Your task to perform on an android device: toggle notifications settings in the gmail app Image 0: 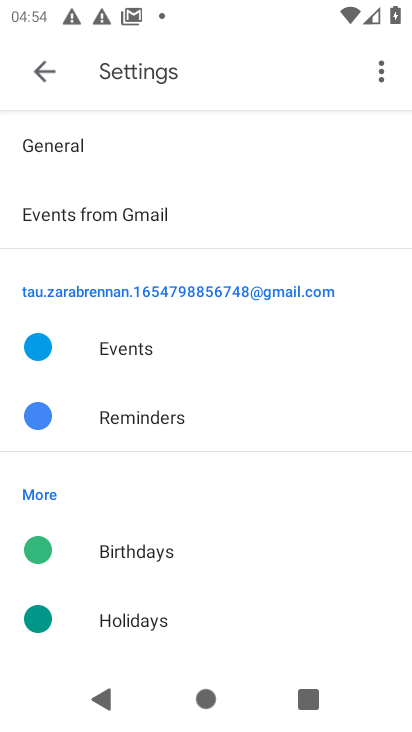
Step 0: press home button
Your task to perform on an android device: toggle notifications settings in the gmail app Image 1: 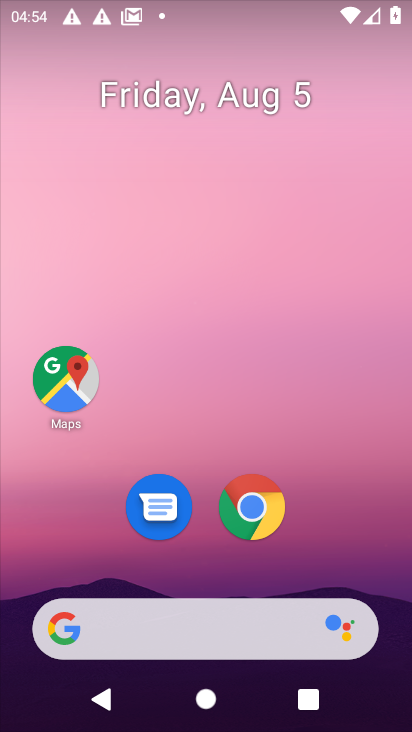
Step 1: drag from (138, 600) to (94, 180)
Your task to perform on an android device: toggle notifications settings in the gmail app Image 2: 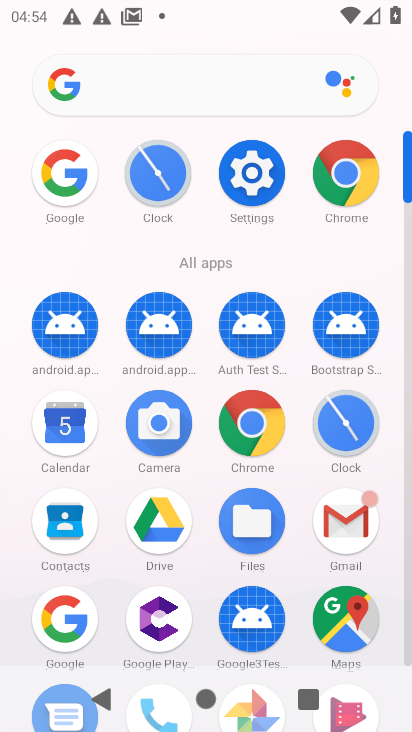
Step 2: click (342, 512)
Your task to perform on an android device: toggle notifications settings in the gmail app Image 3: 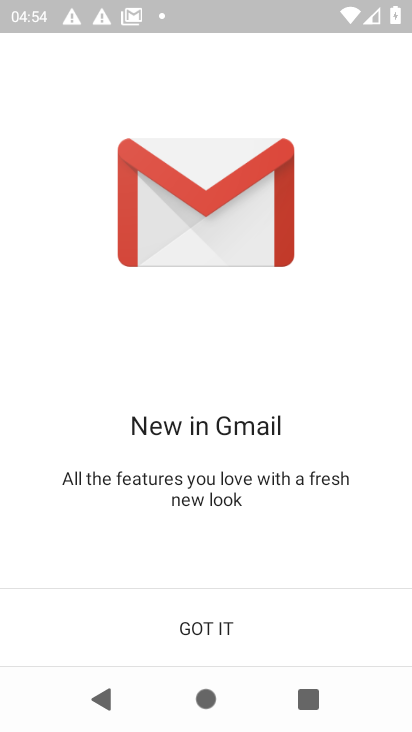
Step 3: click (203, 625)
Your task to perform on an android device: toggle notifications settings in the gmail app Image 4: 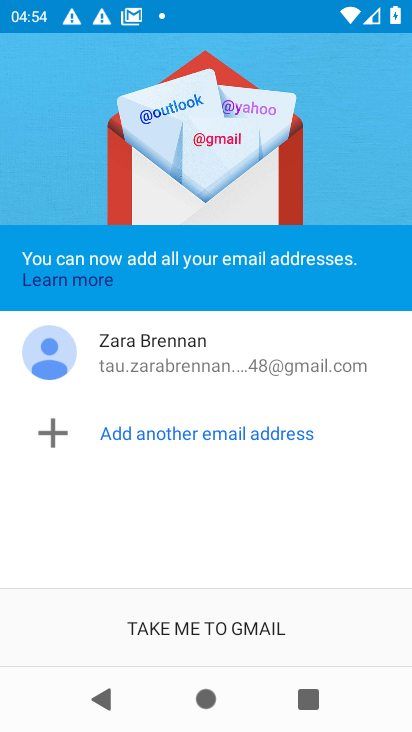
Step 4: click (203, 625)
Your task to perform on an android device: toggle notifications settings in the gmail app Image 5: 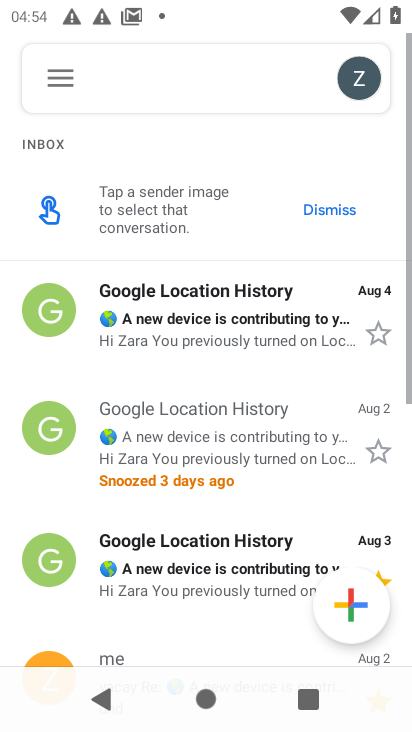
Step 5: click (59, 83)
Your task to perform on an android device: toggle notifications settings in the gmail app Image 6: 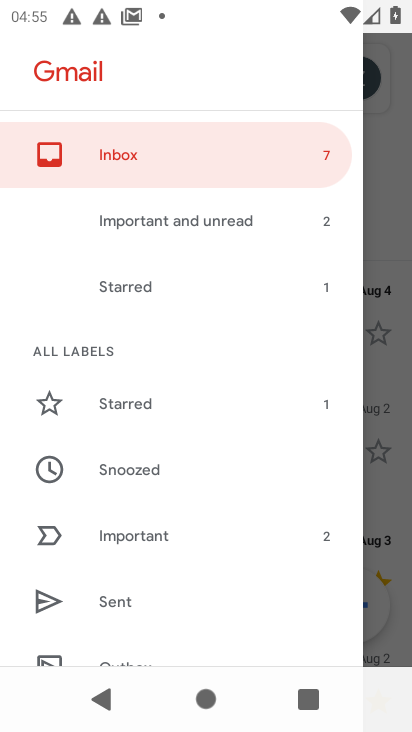
Step 6: drag from (151, 637) to (138, 301)
Your task to perform on an android device: toggle notifications settings in the gmail app Image 7: 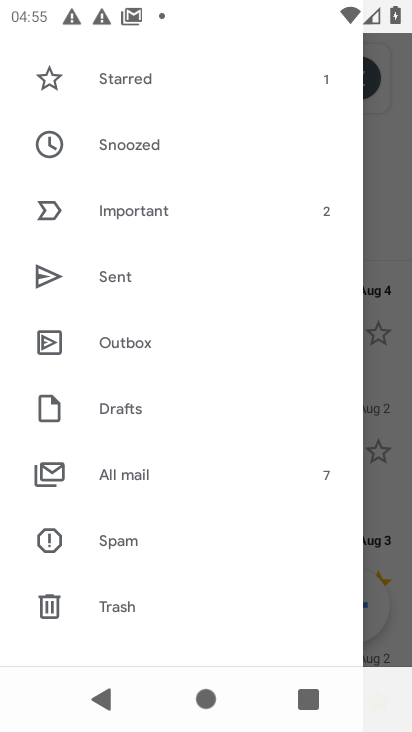
Step 7: drag from (181, 604) to (163, 321)
Your task to perform on an android device: toggle notifications settings in the gmail app Image 8: 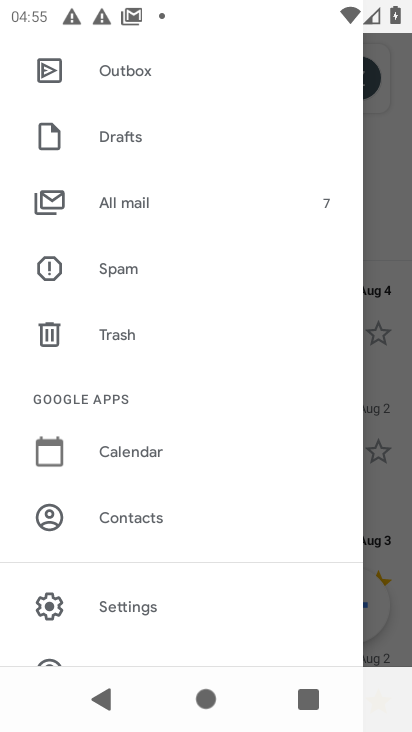
Step 8: click (154, 616)
Your task to perform on an android device: toggle notifications settings in the gmail app Image 9: 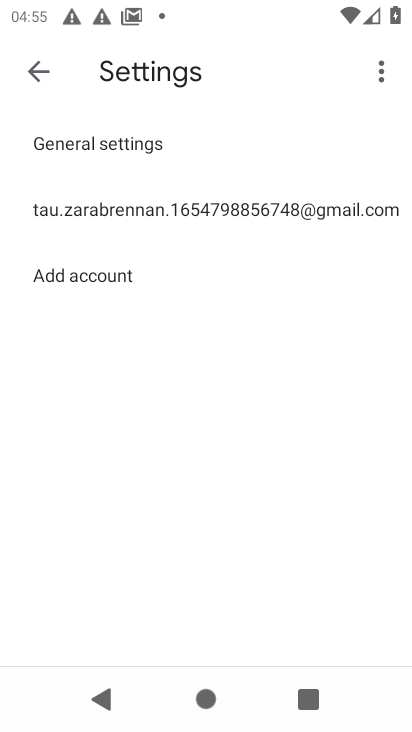
Step 9: click (134, 212)
Your task to perform on an android device: toggle notifications settings in the gmail app Image 10: 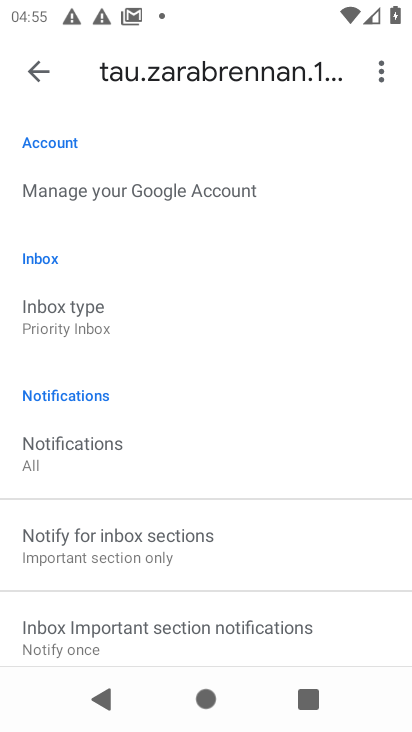
Step 10: drag from (106, 614) to (93, 322)
Your task to perform on an android device: toggle notifications settings in the gmail app Image 11: 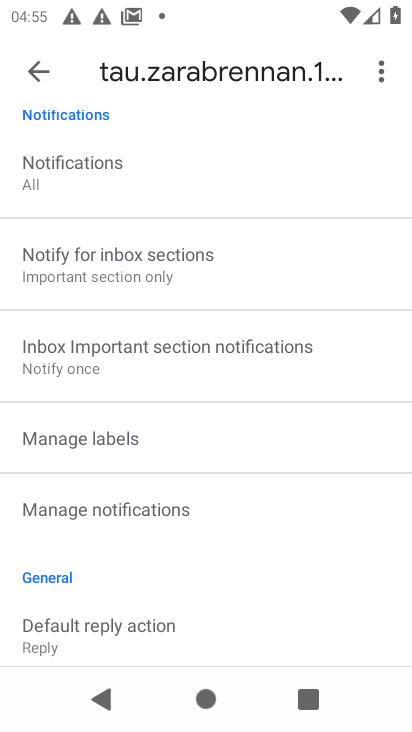
Step 11: click (104, 511)
Your task to perform on an android device: toggle notifications settings in the gmail app Image 12: 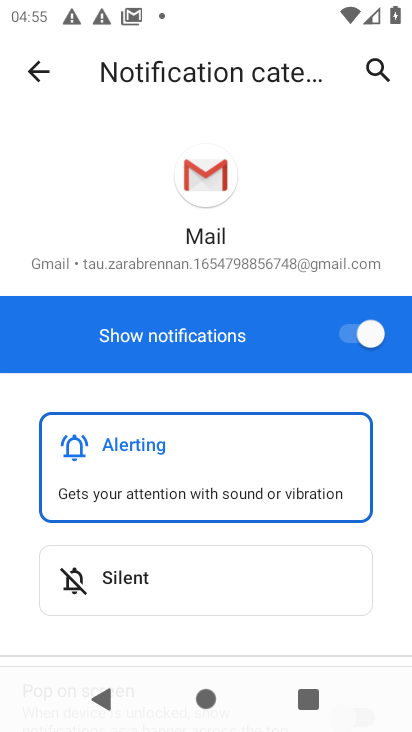
Step 12: click (353, 335)
Your task to perform on an android device: toggle notifications settings in the gmail app Image 13: 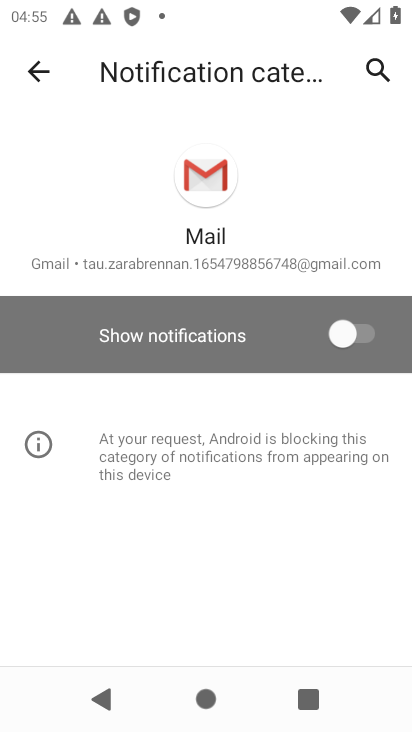
Step 13: task complete